Your task to perform on an android device: Open internet settings Image 0: 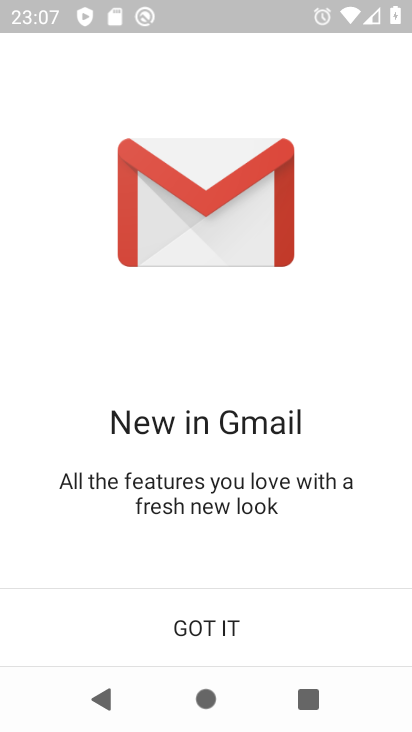
Step 0: click (172, 618)
Your task to perform on an android device: Open internet settings Image 1: 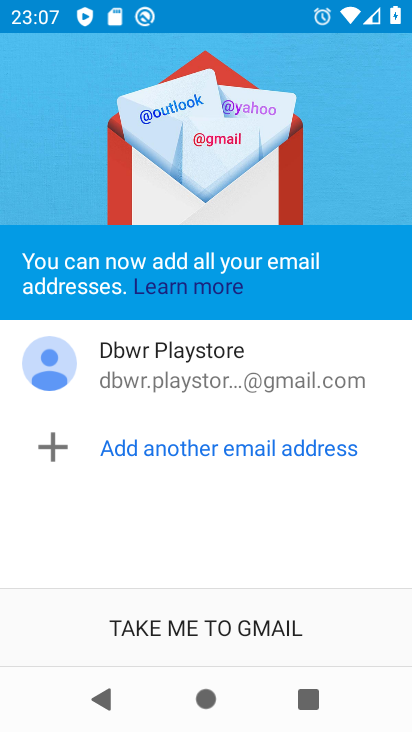
Step 1: drag from (246, 26) to (232, 559)
Your task to perform on an android device: Open internet settings Image 2: 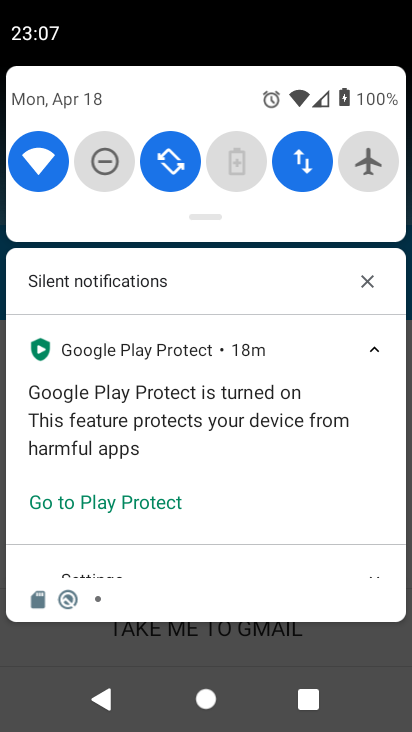
Step 2: drag from (173, 89) to (186, 547)
Your task to perform on an android device: Open internet settings Image 3: 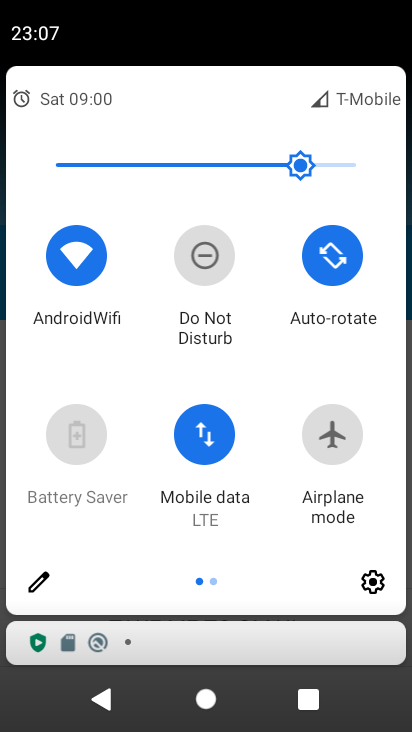
Step 3: click (373, 581)
Your task to perform on an android device: Open internet settings Image 4: 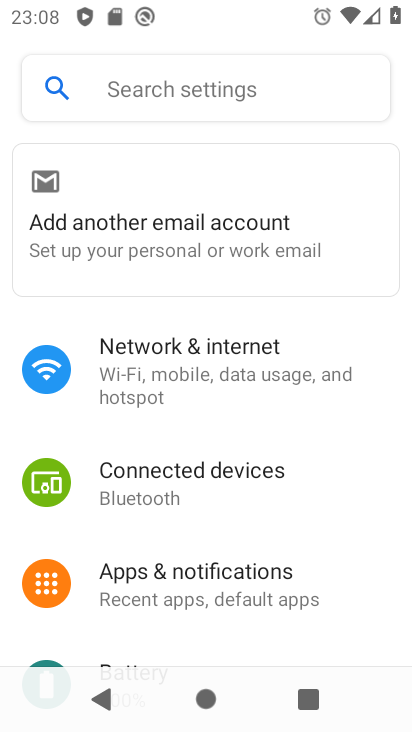
Step 4: click (216, 356)
Your task to perform on an android device: Open internet settings Image 5: 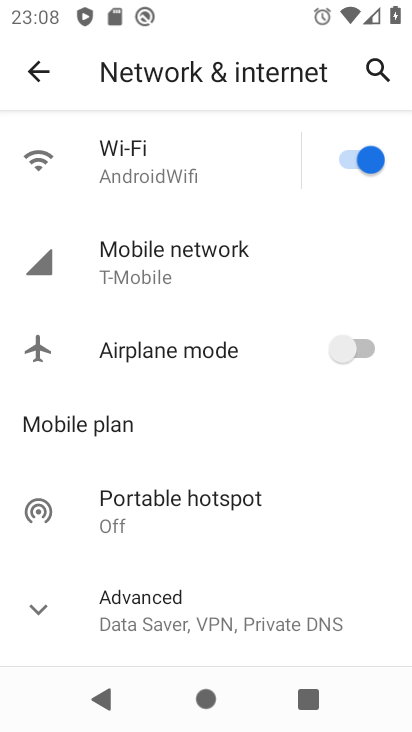
Step 5: task complete